Your task to perform on an android device: delete location history Image 0: 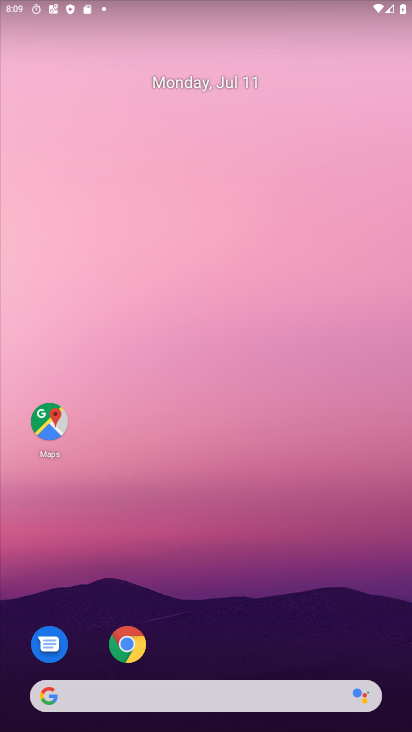
Step 0: click (51, 429)
Your task to perform on an android device: delete location history Image 1: 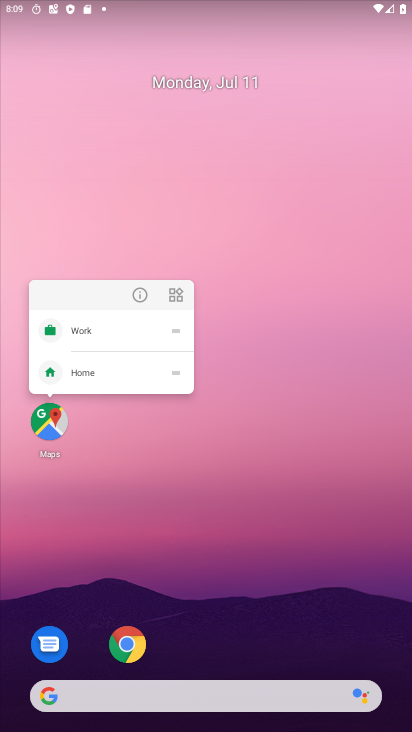
Step 1: click (44, 418)
Your task to perform on an android device: delete location history Image 2: 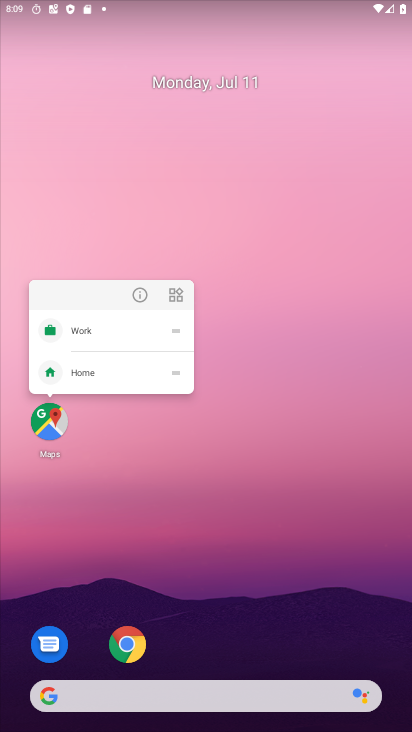
Step 2: click (44, 418)
Your task to perform on an android device: delete location history Image 3: 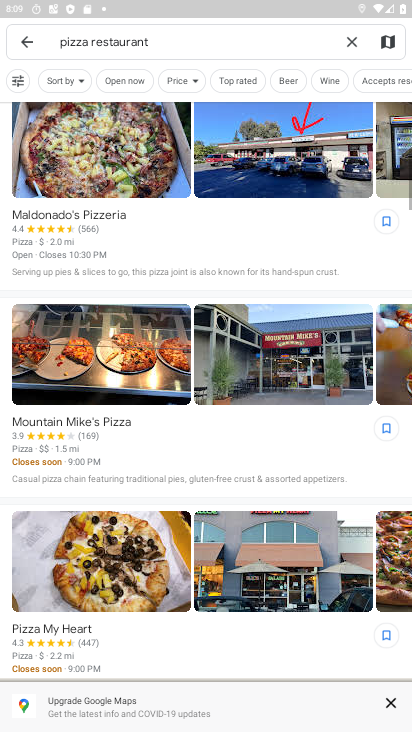
Step 3: click (25, 42)
Your task to perform on an android device: delete location history Image 4: 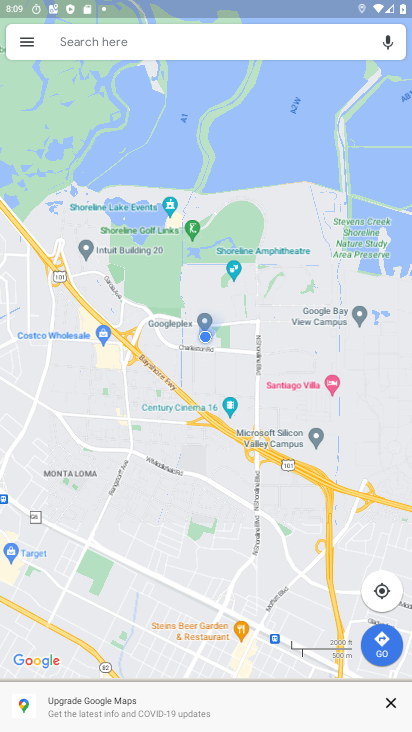
Step 4: click (30, 39)
Your task to perform on an android device: delete location history Image 5: 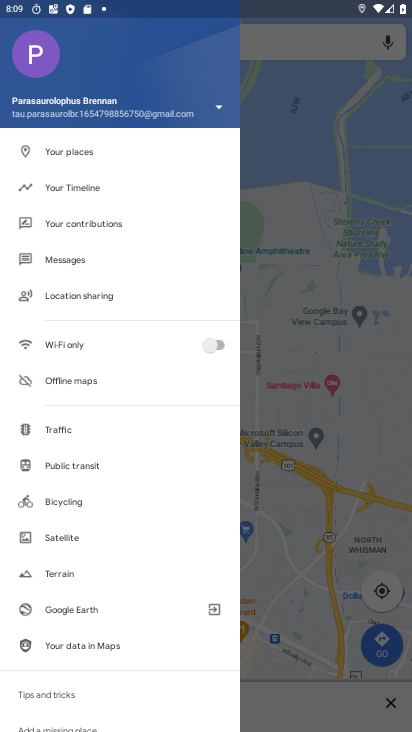
Step 5: click (73, 188)
Your task to perform on an android device: delete location history Image 6: 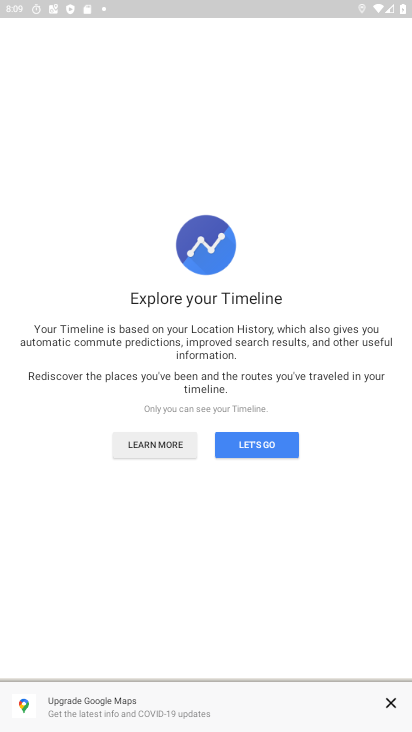
Step 6: click (266, 441)
Your task to perform on an android device: delete location history Image 7: 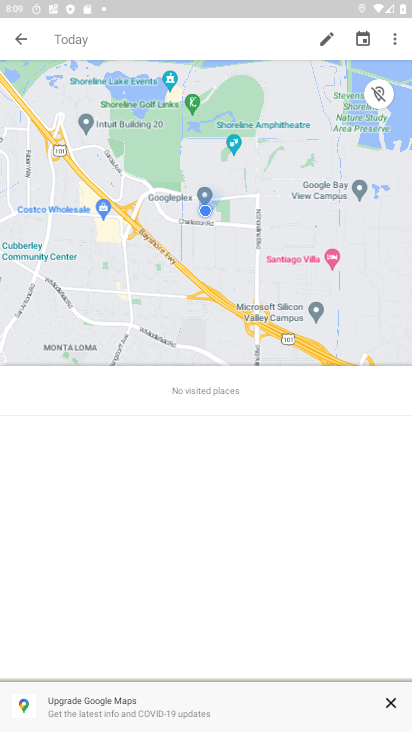
Step 7: click (398, 39)
Your task to perform on an android device: delete location history Image 8: 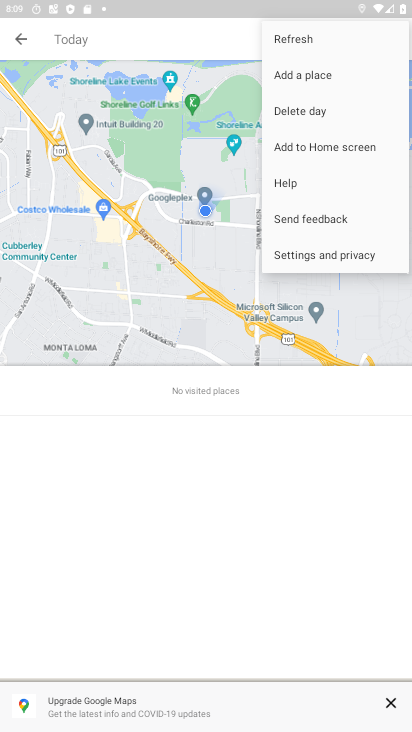
Step 8: click (326, 257)
Your task to perform on an android device: delete location history Image 9: 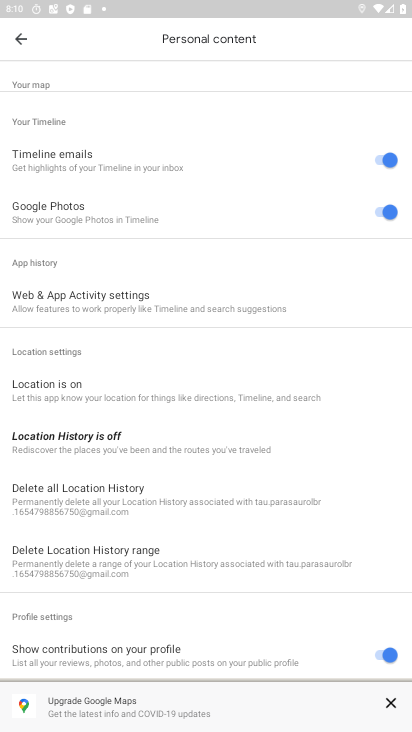
Step 9: click (85, 492)
Your task to perform on an android device: delete location history Image 10: 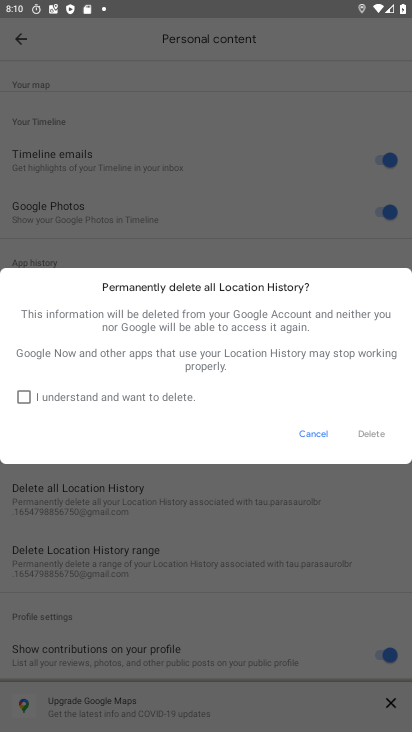
Step 10: click (24, 399)
Your task to perform on an android device: delete location history Image 11: 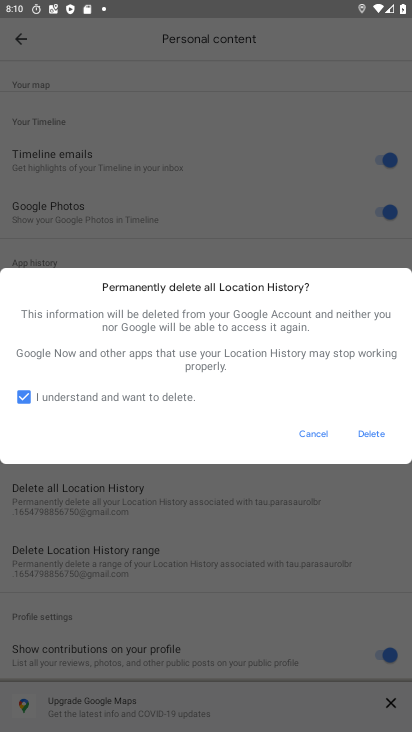
Step 11: click (373, 433)
Your task to perform on an android device: delete location history Image 12: 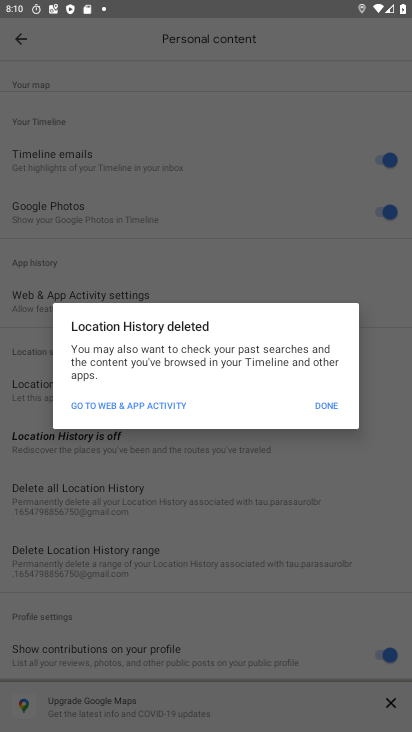
Step 12: click (325, 404)
Your task to perform on an android device: delete location history Image 13: 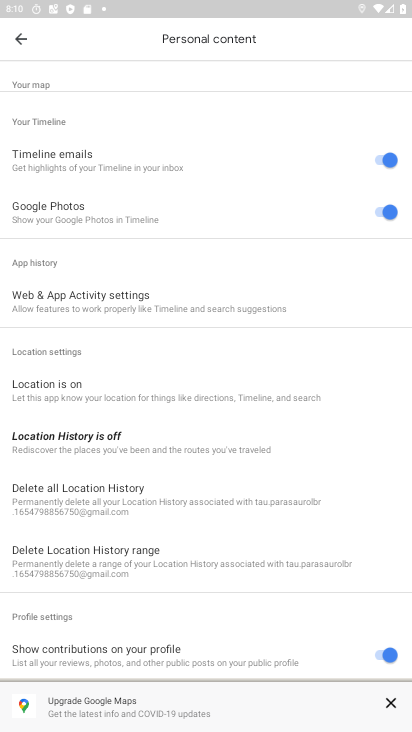
Step 13: task complete